Your task to perform on an android device: Go to internet settings Image 0: 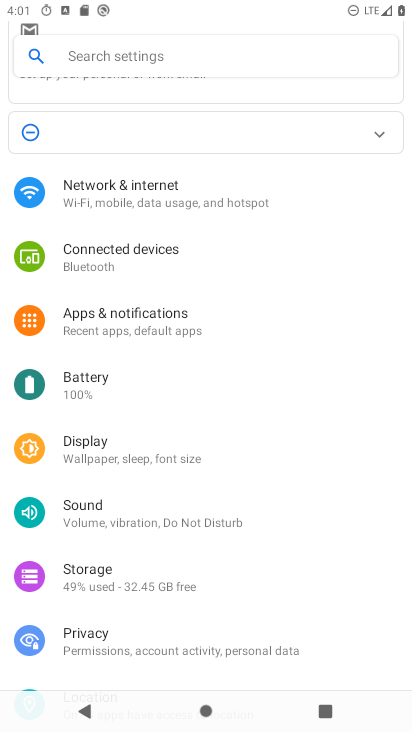
Step 0: click (158, 197)
Your task to perform on an android device: Go to internet settings Image 1: 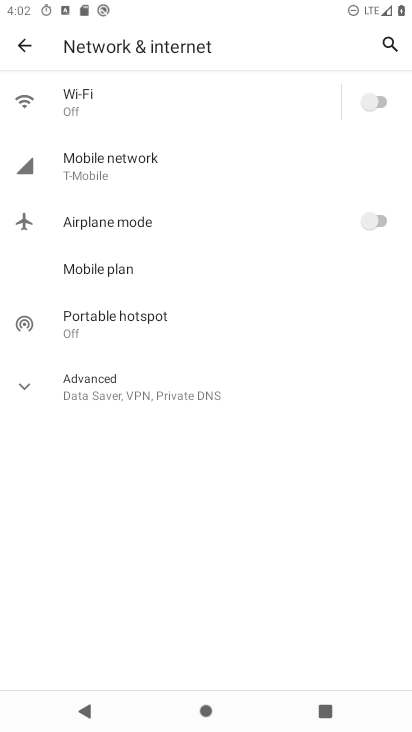
Step 1: task complete